Your task to perform on an android device: Open Youtube and go to the subscriptions tab Image 0: 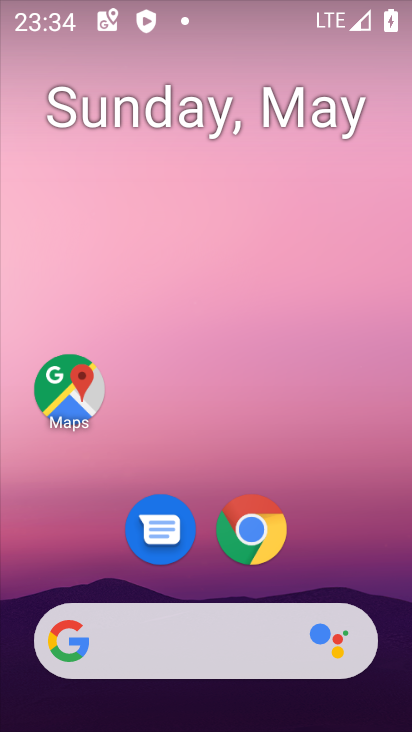
Step 0: press home button
Your task to perform on an android device: Open Youtube and go to the subscriptions tab Image 1: 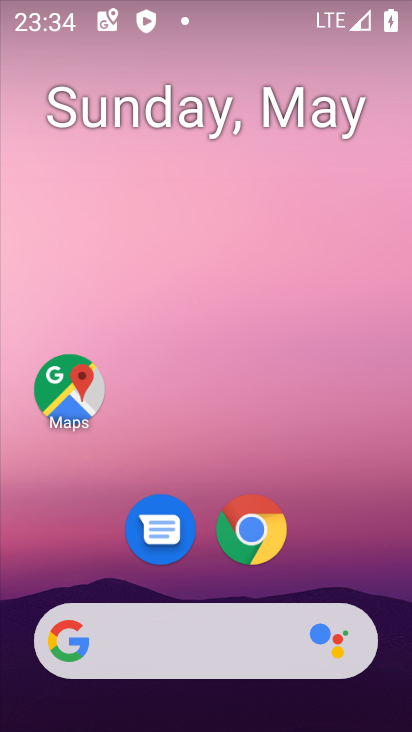
Step 1: drag from (363, 470) to (343, 114)
Your task to perform on an android device: Open Youtube and go to the subscriptions tab Image 2: 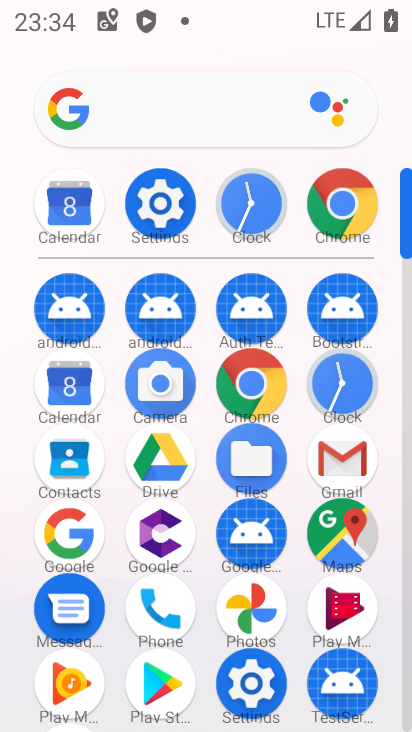
Step 2: drag from (299, 579) to (298, 350)
Your task to perform on an android device: Open Youtube and go to the subscriptions tab Image 3: 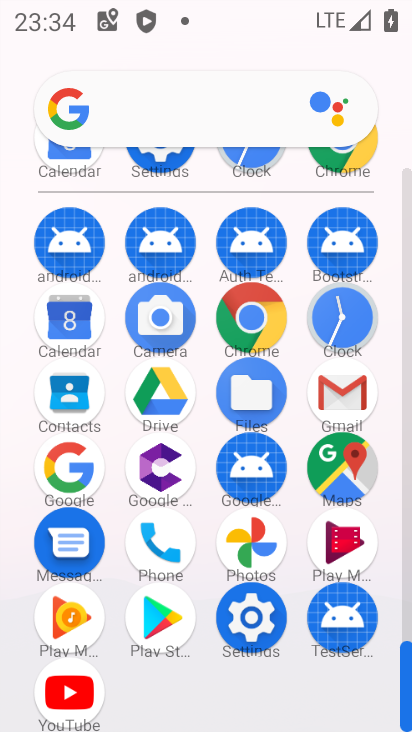
Step 3: click (66, 707)
Your task to perform on an android device: Open Youtube and go to the subscriptions tab Image 4: 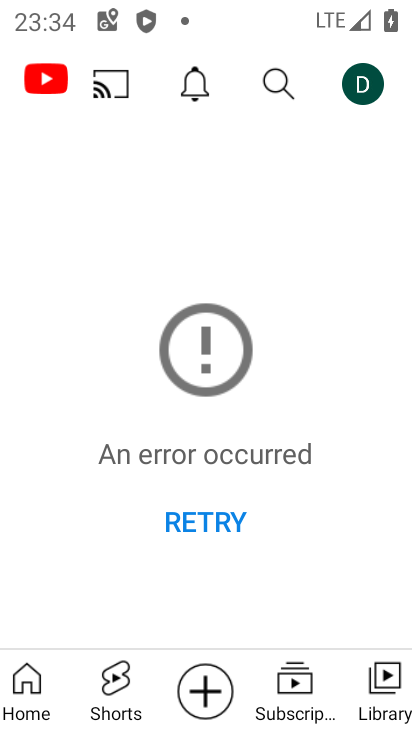
Step 4: click (296, 678)
Your task to perform on an android device: Open Youtube and go to the subscriptions tab Image 5: 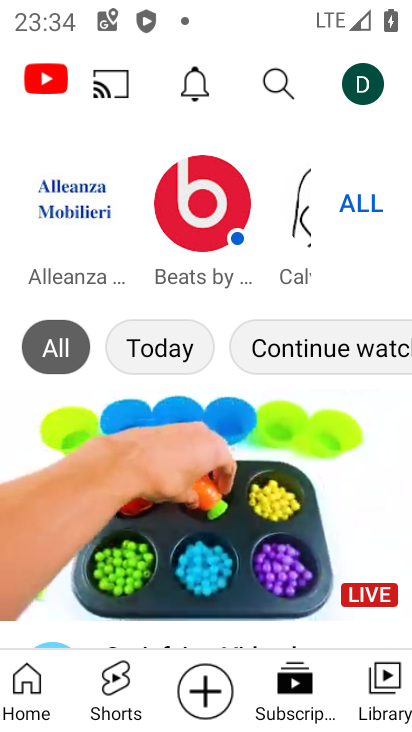
Step 5: click (288, 671)
Your task to perform on an android device: Open Youtube and go to the subscriptions tab Image 6: 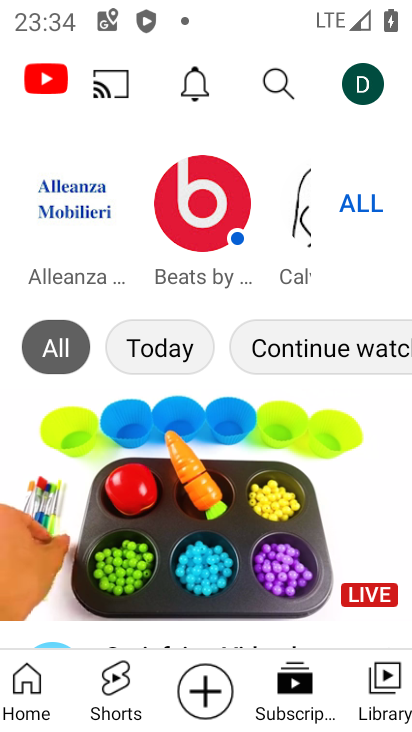
Step 6: task complete